Your task to perform on an android device: toggle javascript in the chrome app Image 0: 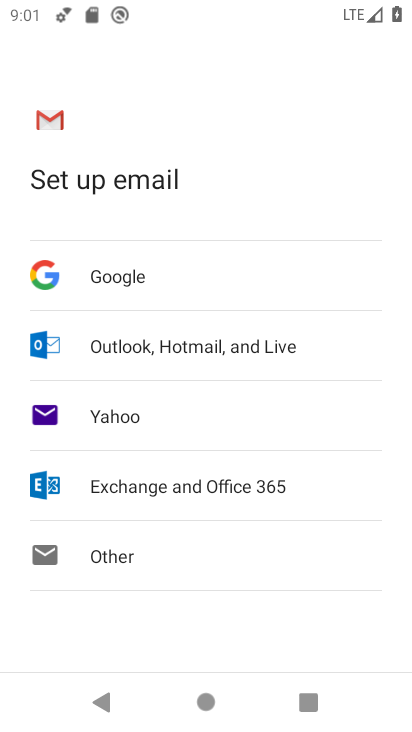
Step 0: press home button
Your task to perform on an android device: toggle javascript in the chrome app Image 1: 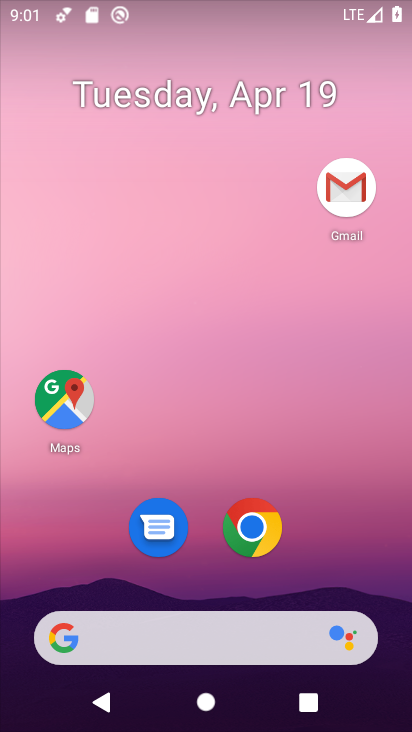
Step 1: drag from (380, 536) to (316, 30)
Your task to perform on an android device: toggle javascript in the chrome app Image 2: 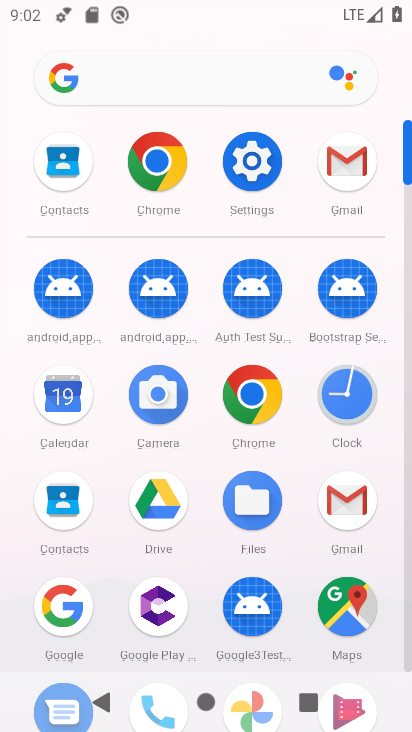
Step 2: click (247, 398)
Your task to perform on an android device: toggle javascript in the chrome app Image 3: 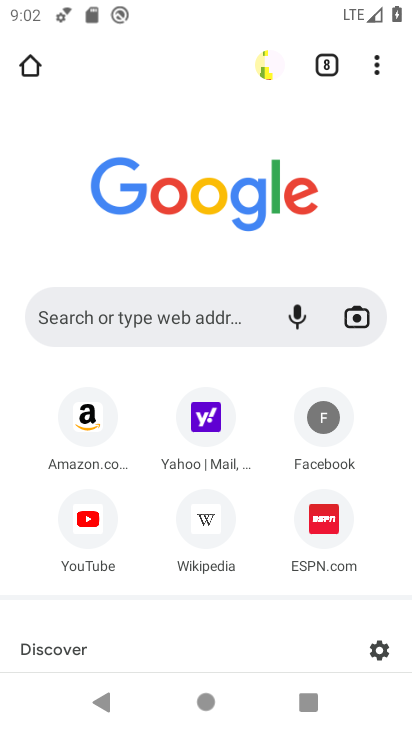
Step 3: click (388, 85)
Your task to perform on an android device: toggle javascript in the chrome app Image 4: 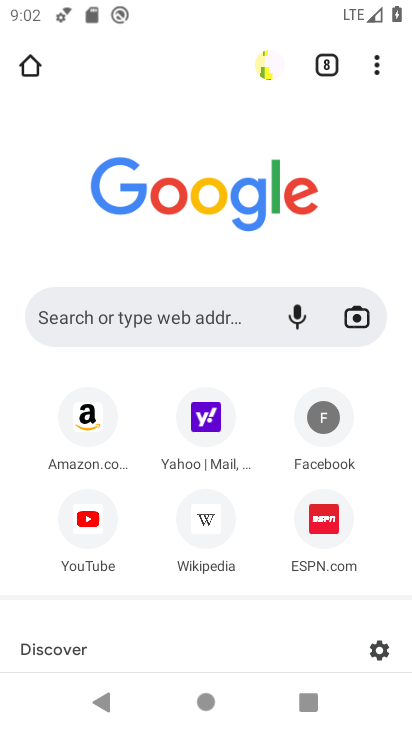
Step 4: click (398, 80)
Your task to perform on an android device: toggle javascript in the chrome app Image 5: 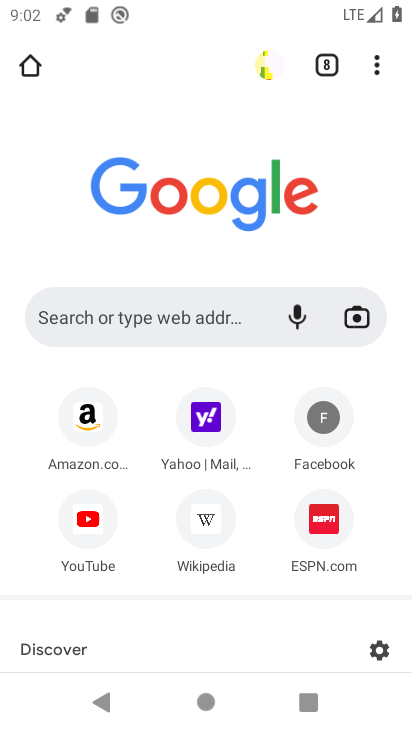
Step 5: click (408, 77)
Your task to perform on an android device: toggle javascript in the chrome app Image 6: 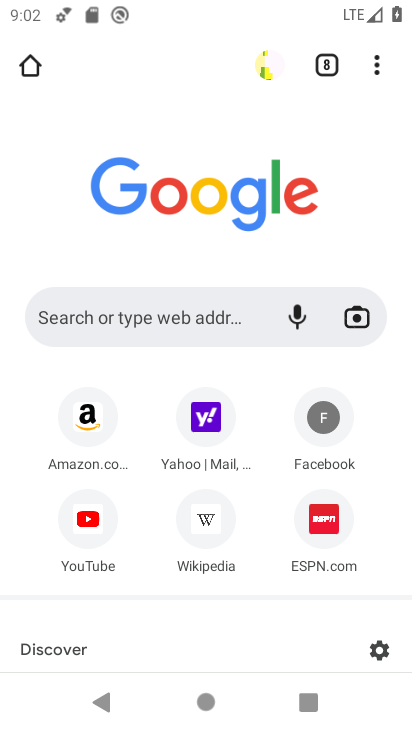
Step 6: click (404, 85)
Your task to perform on an android device: toggle javascript in the chrome app Image 7: 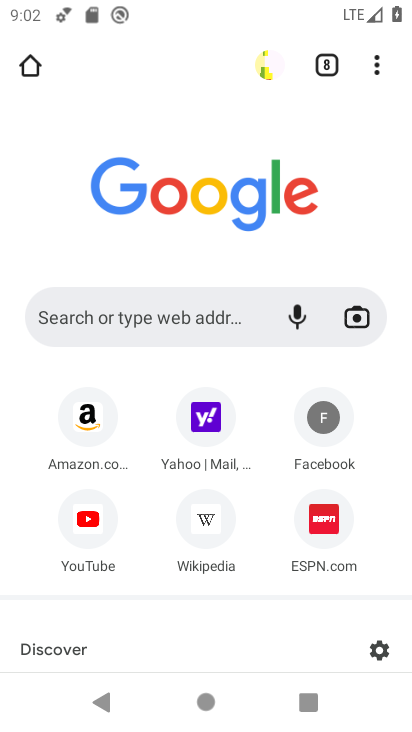
Step 7: click (402, 49)
Your task to perform on an android device: toggle javascript in the chrome app Image 8: 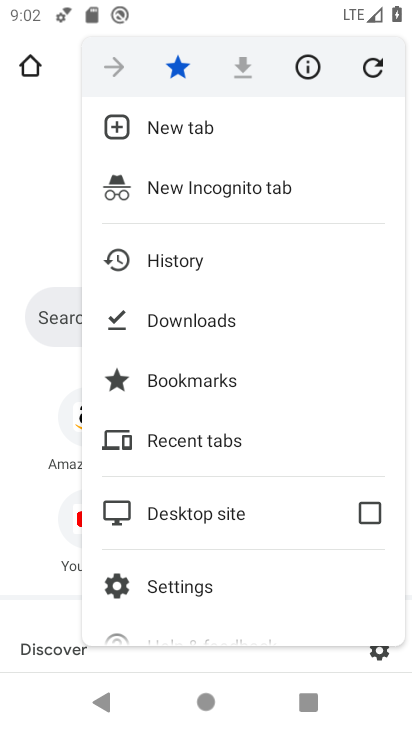
Step 8: drag from (268, 450) to (305, 227)
Your task to perform on an android device: toggle javascript in the chrome app Image 9: 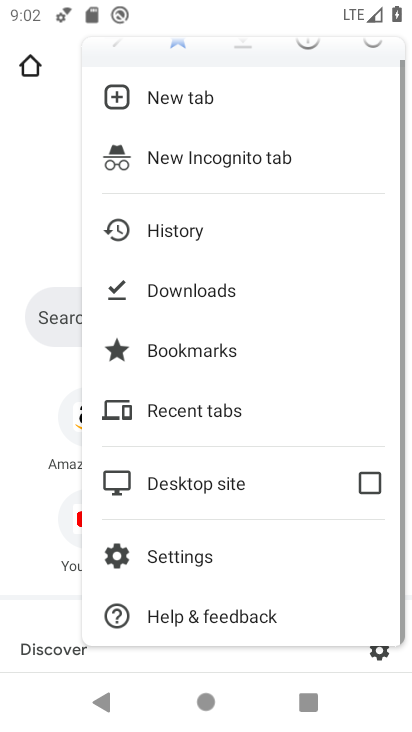
Step 9: click (157, 566)
Your task to perform on an android device: toggle javascript in the chrome app Image 10: 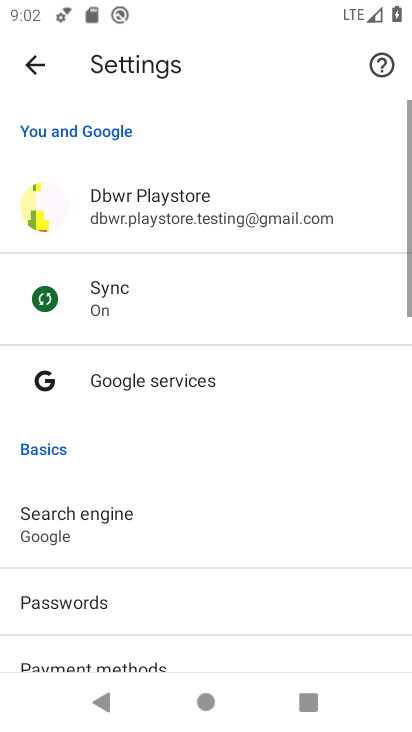
Step 10: drag from (271, 596) to (334, 244)
Your task to perform on an android device: toggle javascript in the chrome app Image 11: 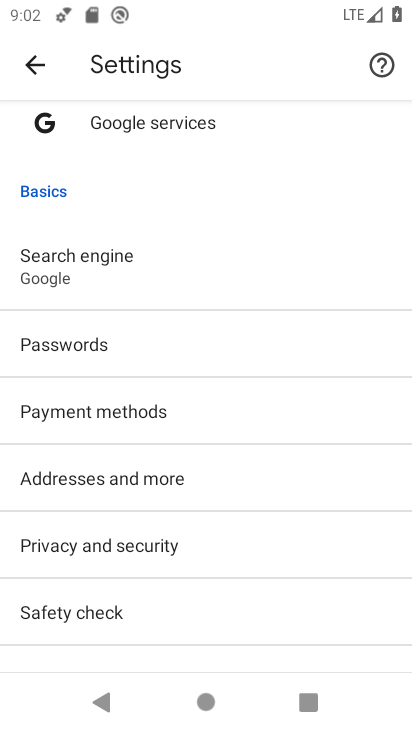
Step 11: drag from (281, 522) to (327, 273)
Your task to perform on an android device: toggle javascript in the chrome app Image 12: 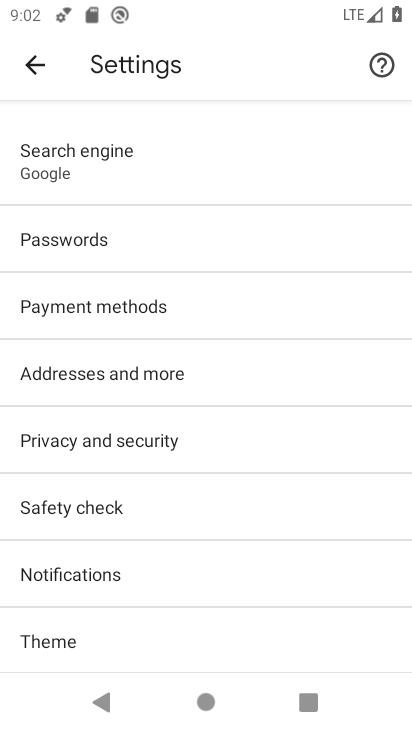
Step 12: drag from (297, 509) to (349, 224)
Your task to perform on an android device: toggle javascript in the chrome app Image 13: 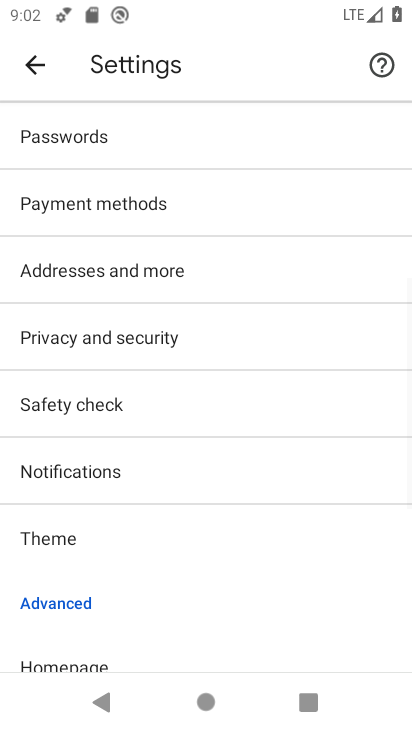
Step 13: drag from (299, 587) to (343, 244)
Your task to perform on an android device: toggle javascript in the chrome app Image 14: 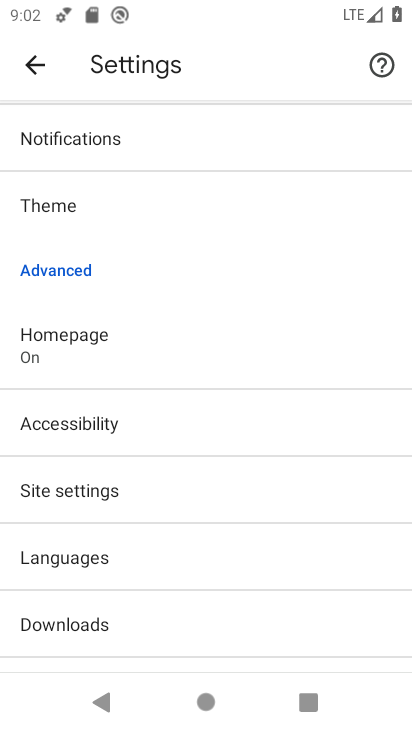
Step 14: click (135, 490)
Your task to perform on an android device: toggle javascript in the chrome app Image 15: 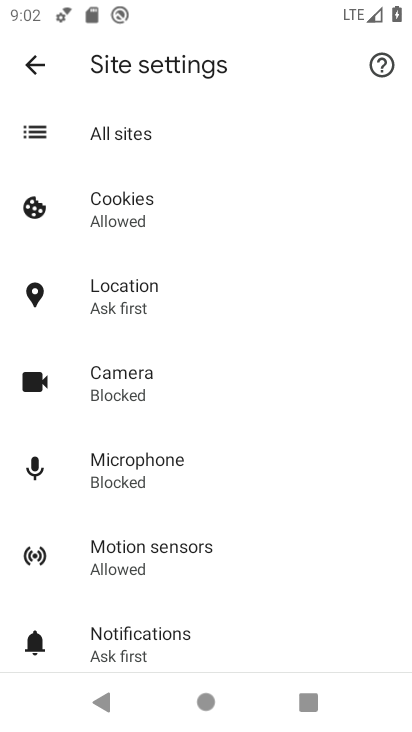
Step 15: drag from (258, 595) to (317, 198)
Your task to perform on an android device: toggle javascript in the chrome app Image 16: 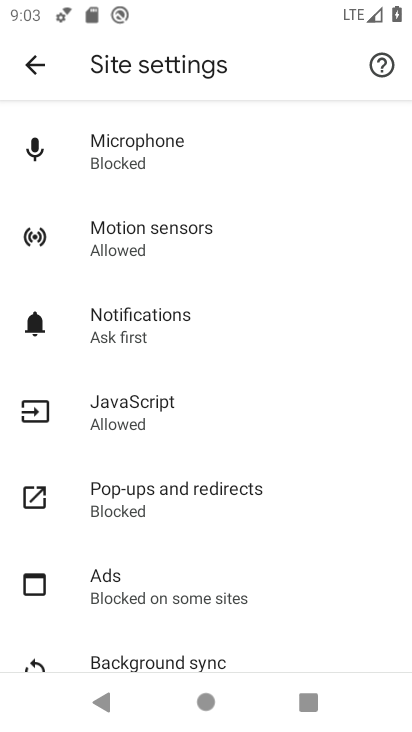
Step 16: click (213, 406)
Your task to perform on an android device: toggle javascript in the chrome app Image 17: 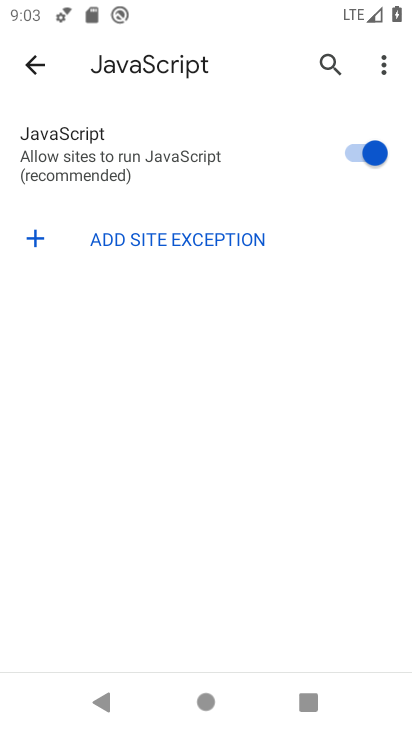
Step 17: click (351, 154)
Your task to perform on an android device: toggle javascript in the chrome app Image 18: 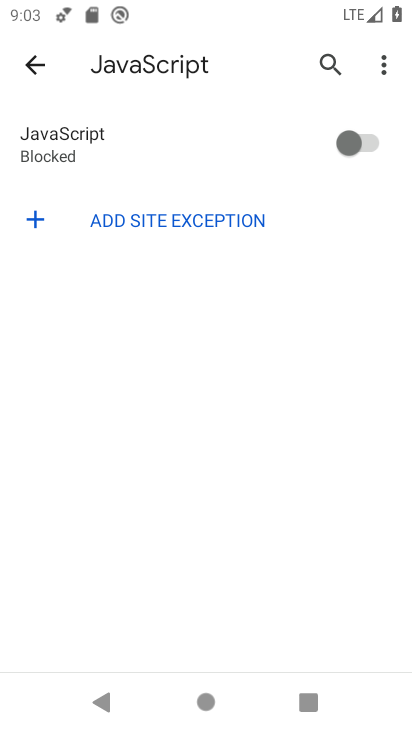
Step 18: task complete